Your task to perform on an android device: check google app version Image 0: 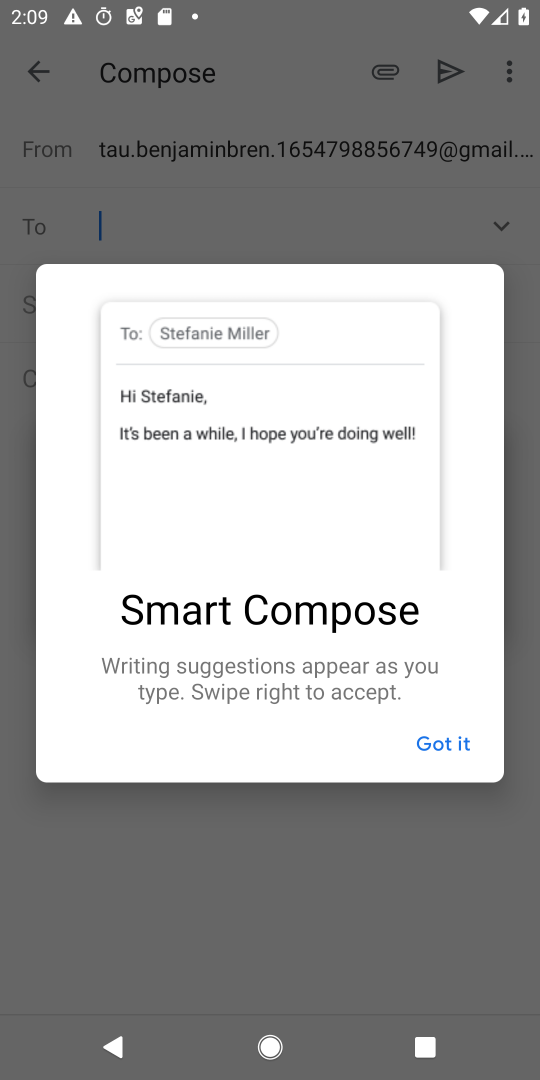
Step 0: press home button
Your task to perform on an android device: check google app version Image 1: 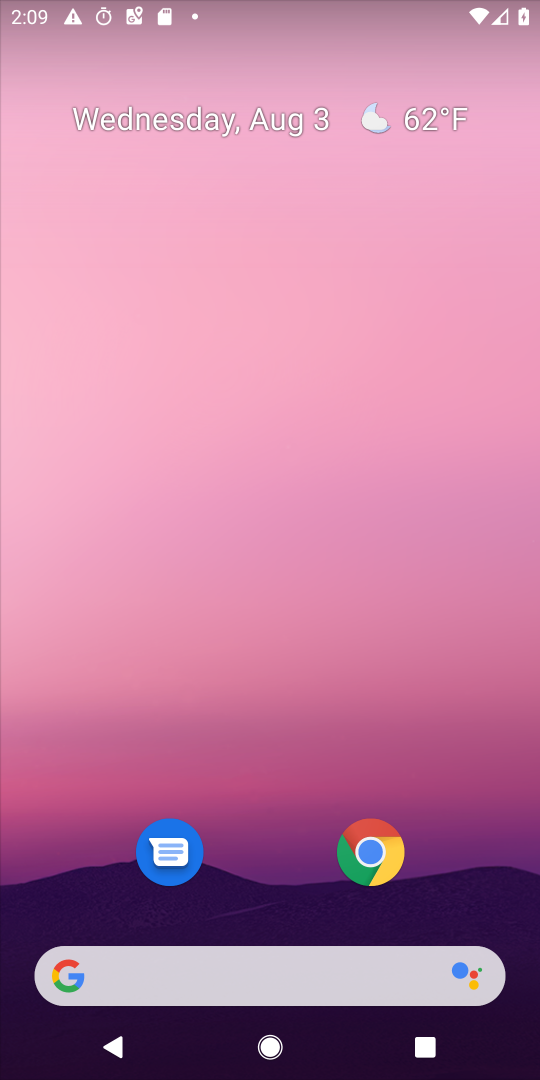
Step 1: drag from (514, 878) to (228, 125)
Your task to perform on an android device: check google app version Image 2: 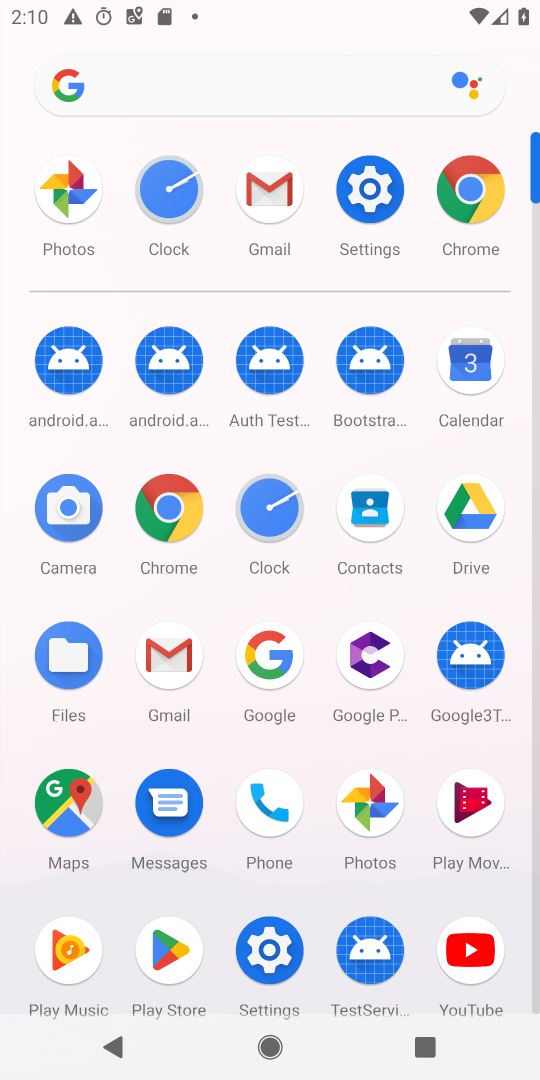
Step 2: click (268, 663)
Your task to perform on an android device: check google app version Image 3: 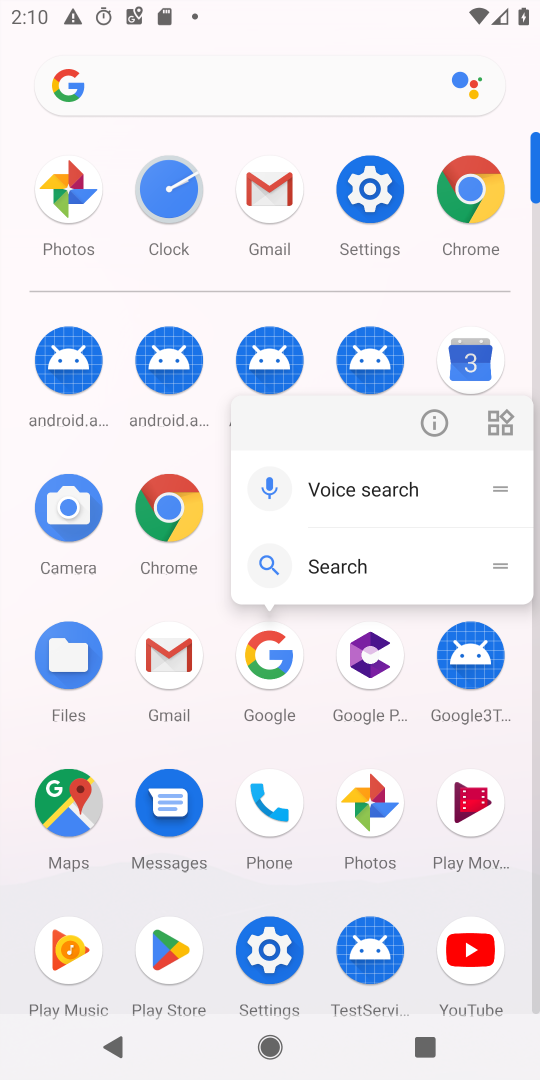
Step 3: click (438, 417)
Your task to perform on an android device: check google app version Image 4: 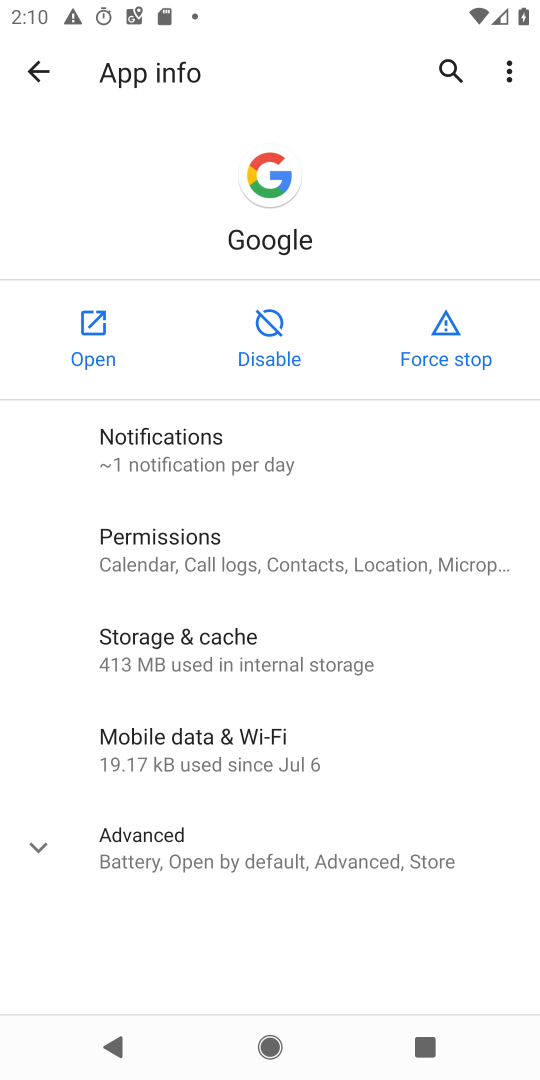
Step 4: click (114, 858)
Your task to perform on an android device: check google app version Image 5: 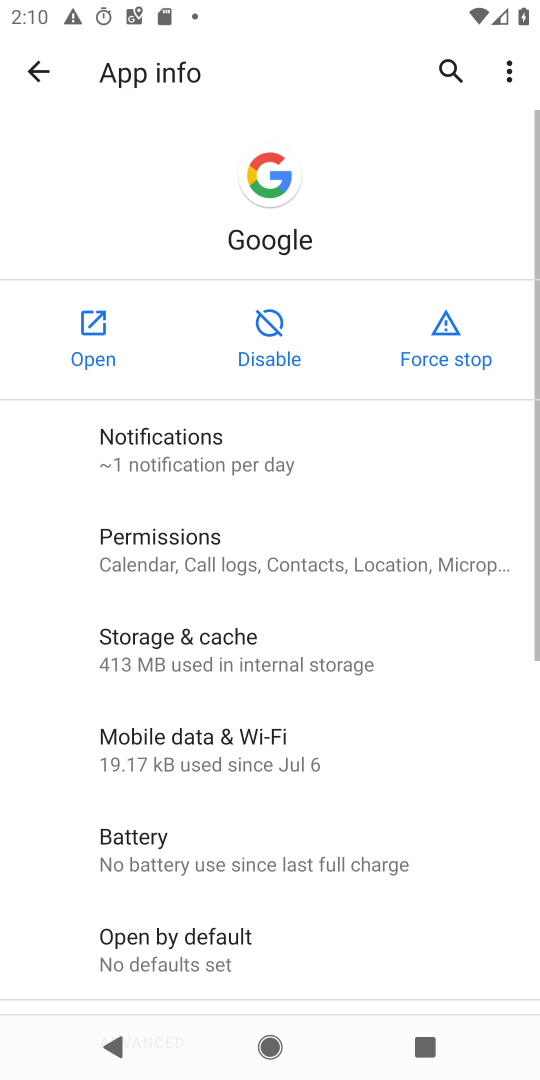
Step 5: task complete